Your task to perform on an android device: turn notification dots off Image 0: 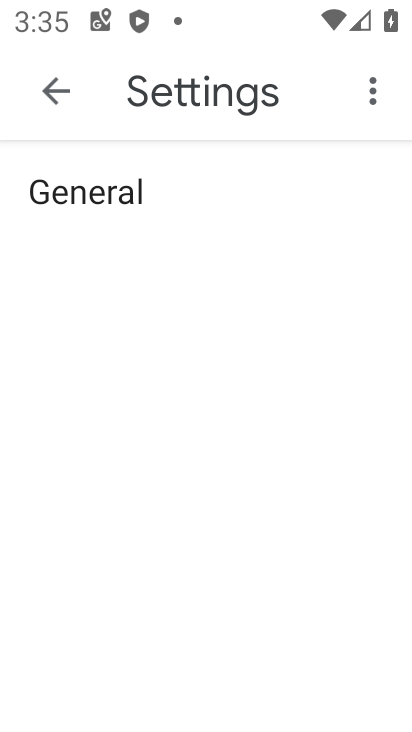
Step 0: press home button
Your task to perform on an android device: turn notification dots off Image 1: 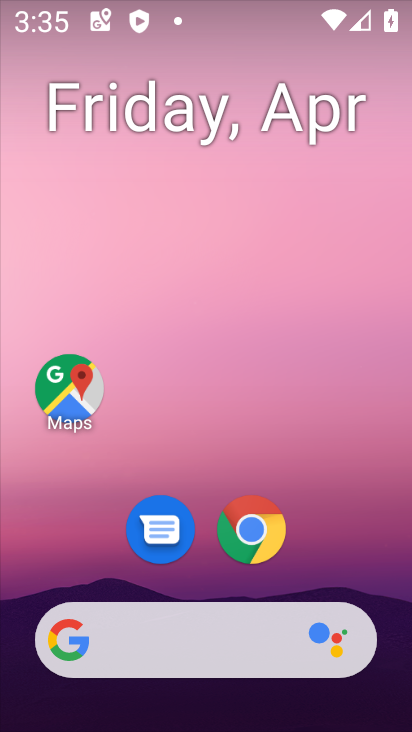
Step 1: drag from (328, 550) to (356, 106)
Your task to perform on an android device: turn notification dots off Image 2: 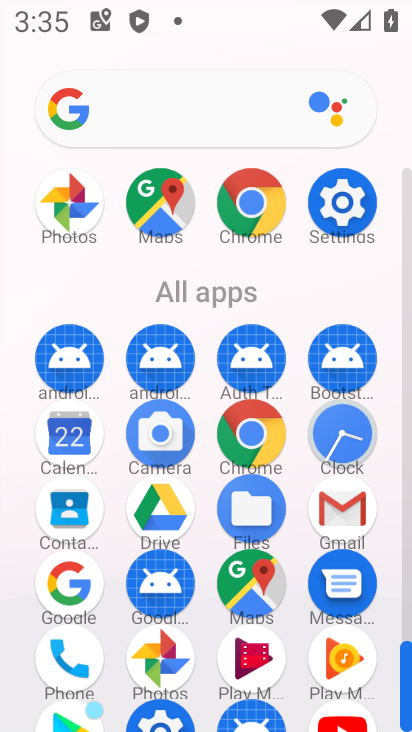
Step 2: click (338, 212)
Your task to perform on an android device: turn notification dots off Image 3: 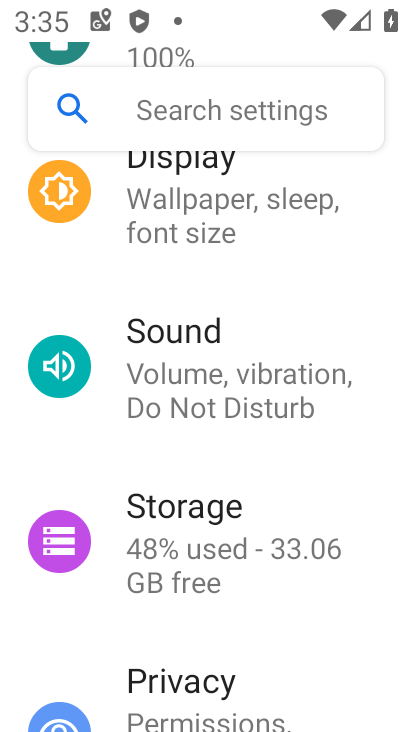
Step 3: drag from (220, 440) to (228, 509)
Your task to perform on an android device: turn notification dots off Image 4: 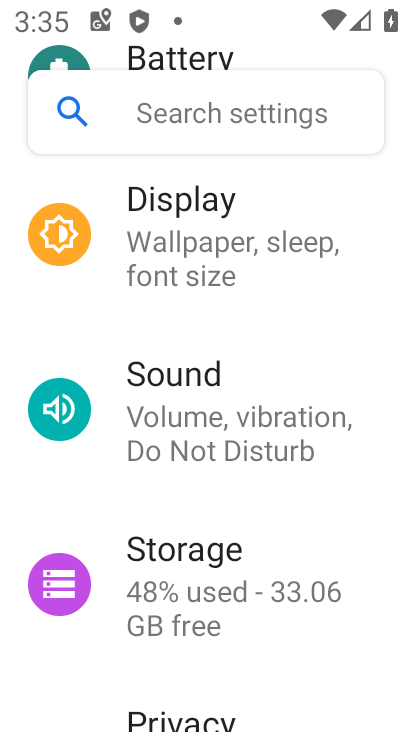
Step 4: drag from (255, 442) to (243, 507)
Your task to perform on an android device: turn notification dots off Image 5: 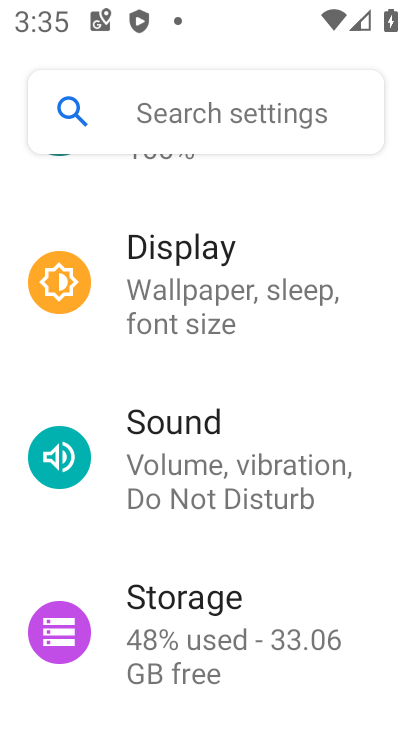
Step 5: drag from (281, 423) to (275, 499)
Your task to perform on an android device: turn notification dots off Image 6: 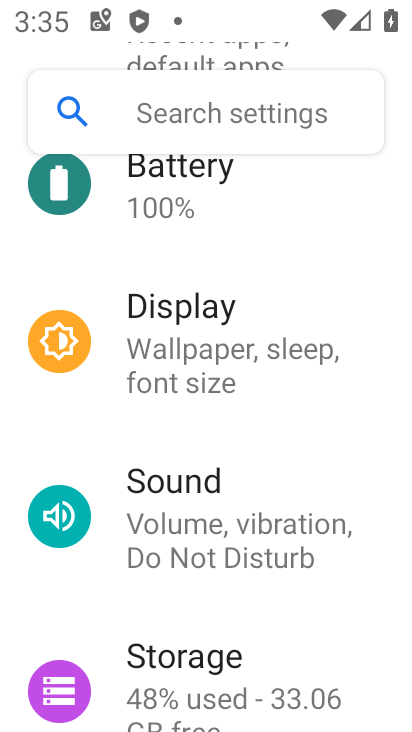
Step 6: drag from (272, 439) to (252, 517)
Your task to perform on an android device: turn notification dots off Image 7: 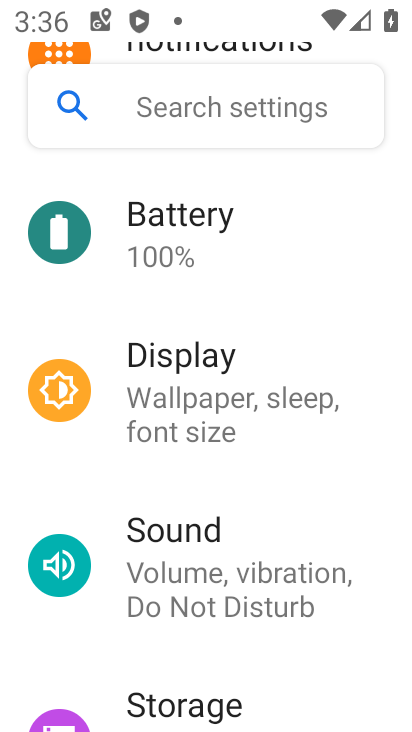
Step 7: drag from (230, 434) to (225, 505)
Your task to perform on an android device: turn notification dots off Image 8: 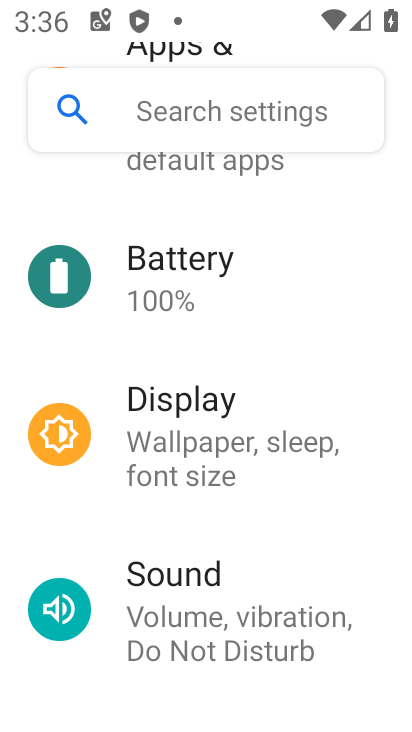
Step 8: drag from (248, 414) to (257, 474)
Your task to perform on an android device: turn notification dots off Image 9: 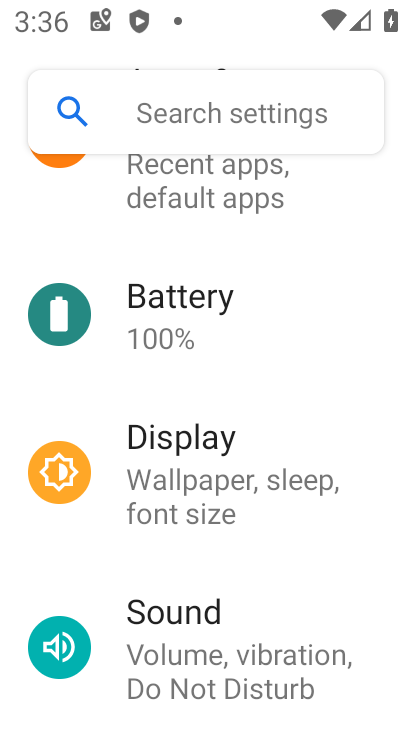
Step 9: drag from (246, 441) to (255, 501)
Your task to perform on an android device: turn notification dots off Image 10: 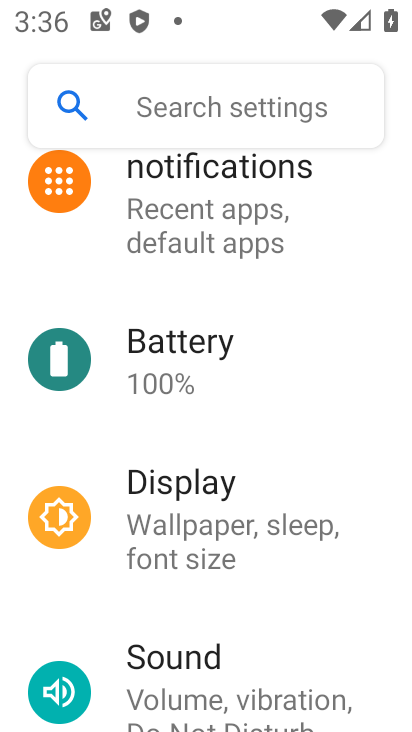
Step 10: drag from (241, 449) to (244, 540)
Your task to perform on an android device: turn notification dots off Image 11: 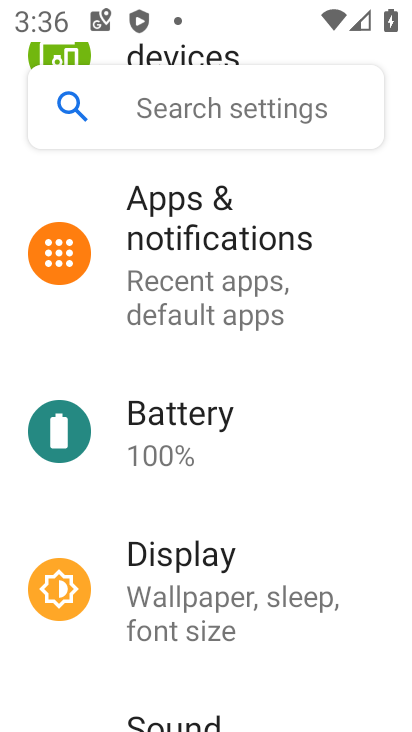
Step 11: click (251, 317)
Your task to perform on an android device: turn notification dots off Image 12: 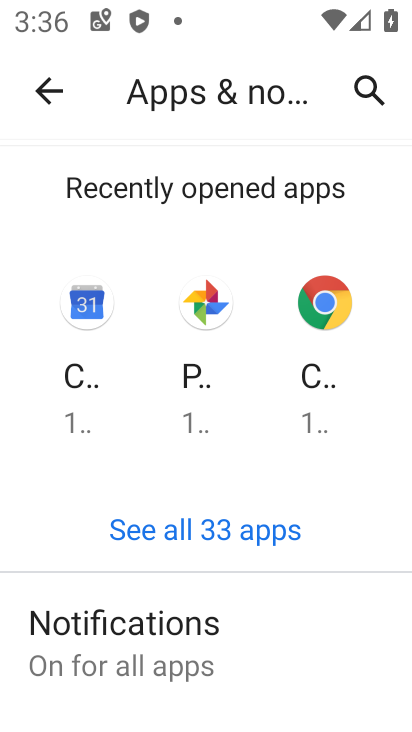
Step 12: click (242, 623)
Your task to perform on an android device: turn notification dots off Image 13: 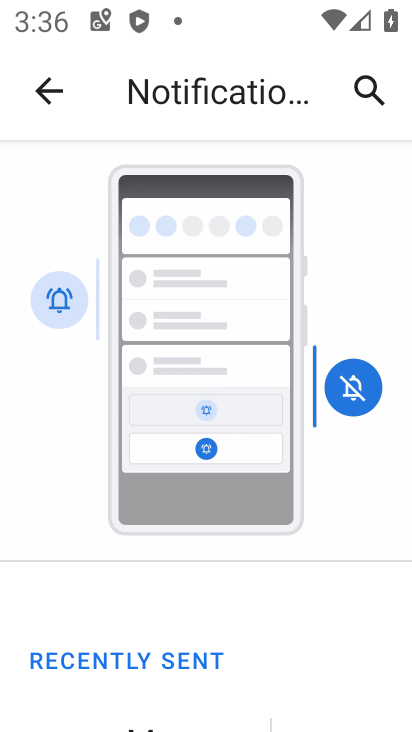
Step 13: drag from (236, 600) to (257, 441)
Your task to perform on an android device: turn notification dots off Image 14: 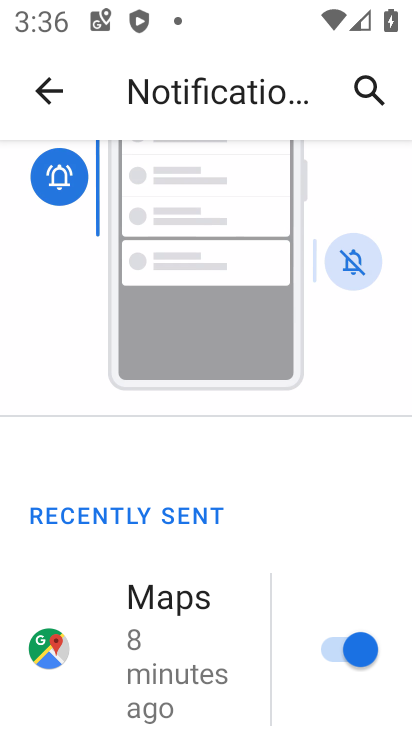
Step 14: drag from (227, 638) to (259, 454)
Your task to perform on an android device: turn notification dots off Image 15: 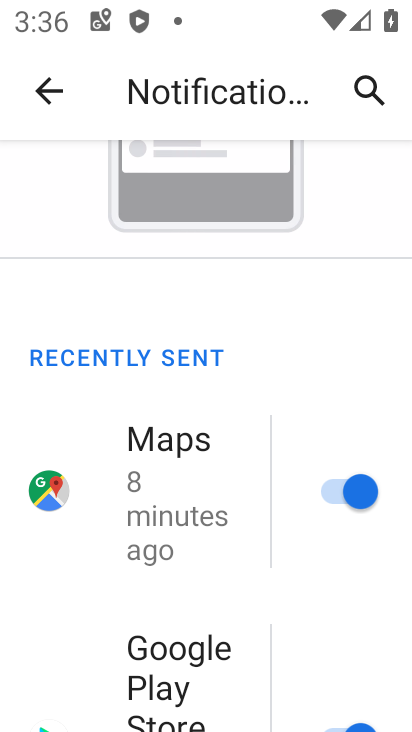
Step 15: drag from (225, 620) to (231, 495)
Your task to perform on an android device: turn notification dots off Image 16: 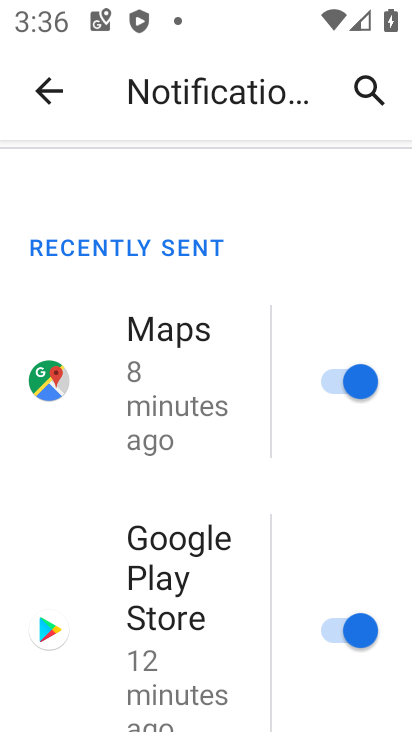
Step 16: drag from (225, 595) to (233, 484)
Your task to perform on an android device: turn notification dots off Image 17: 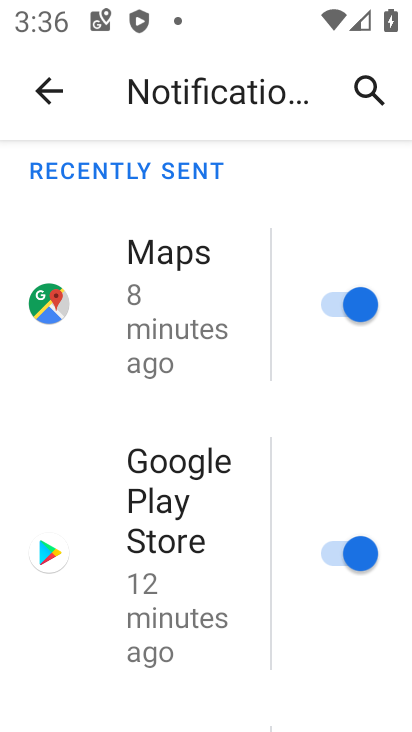
Step 17: drag from (223, 572) to (240, 457)
Your task to perform on an android device: turn notification dots off Image 18: 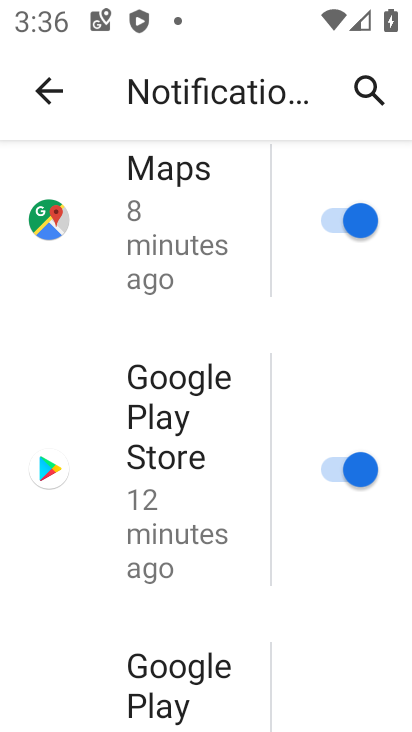
Step 18: drag from (206, 658) to (237, 420)
Your task to perform on an android device: turn notification dots off Image 19: 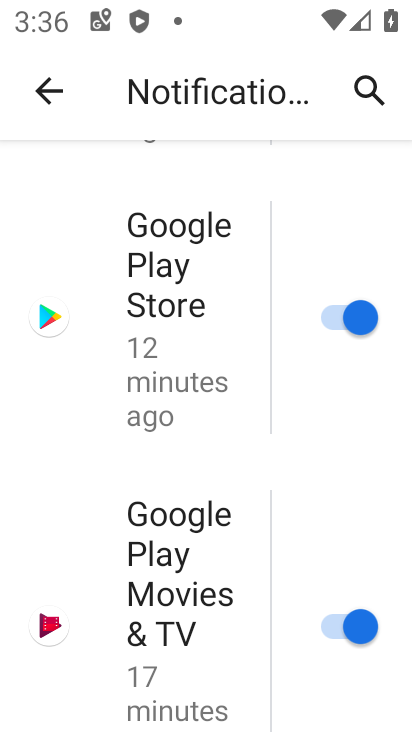
Step 19: drag from (239, 573) to (272, 430)
Your task to perform on an android device: turn notification dots off Image 20: 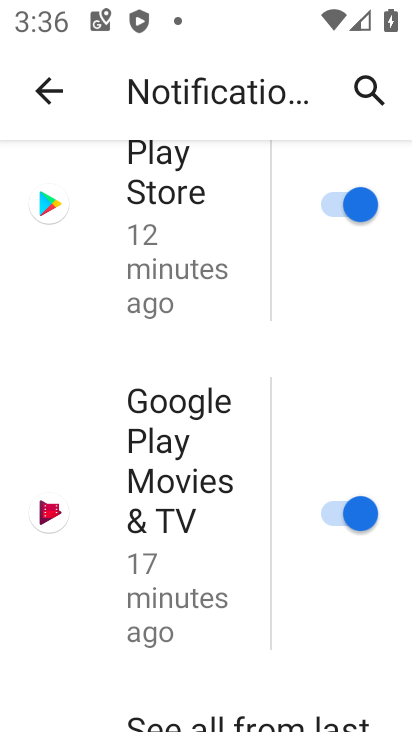
Step 20: drag from (173, 673) to (256, 450)
Your task to perform on an android device: turn notification dots off Image 21: 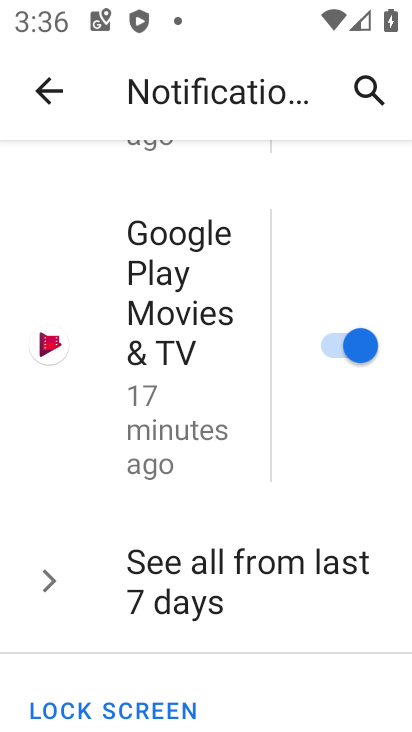
Step 21: drag from (217, 682) to (262, 477)
Your task to perform on an android device: turn notification dots off Image 22: 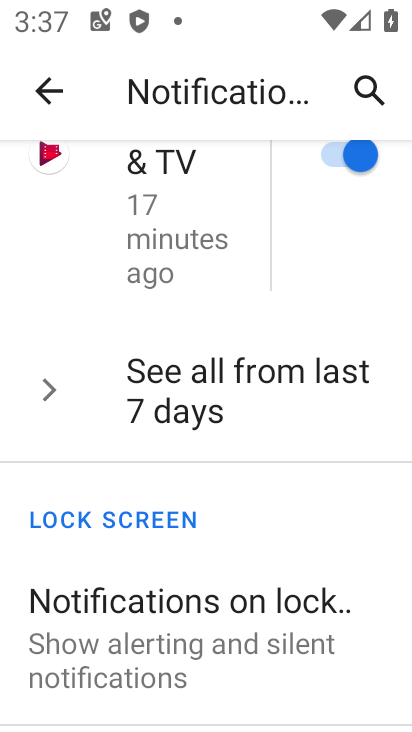
Step 22: drag from (253, 628) to (289, 458)
Your task to perform on an android device: turn notification dots off Image 23: 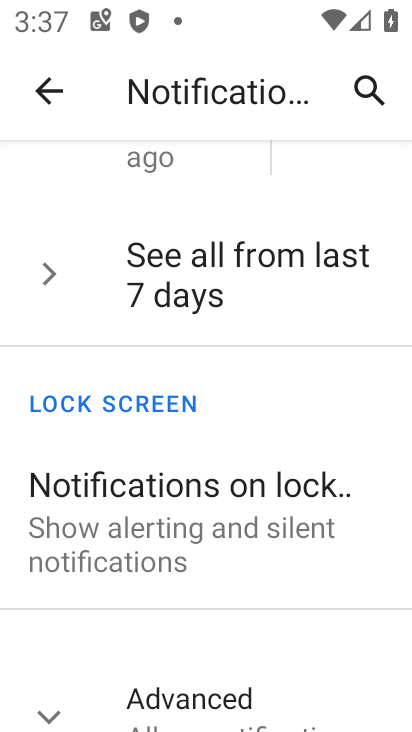
Step 23: click (228, 704)
Your task to perform on an android device: turn notification dots off Image 24: 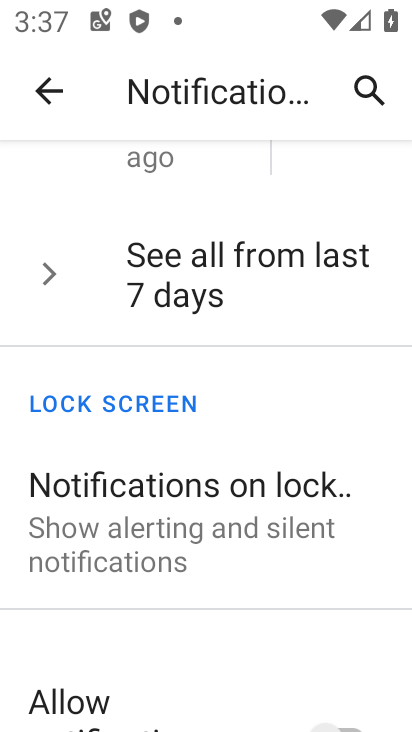
Step 24: drag from (228, 702) to (243, 438)
Your task to perform on an android device: turn notification dots off Image 25: 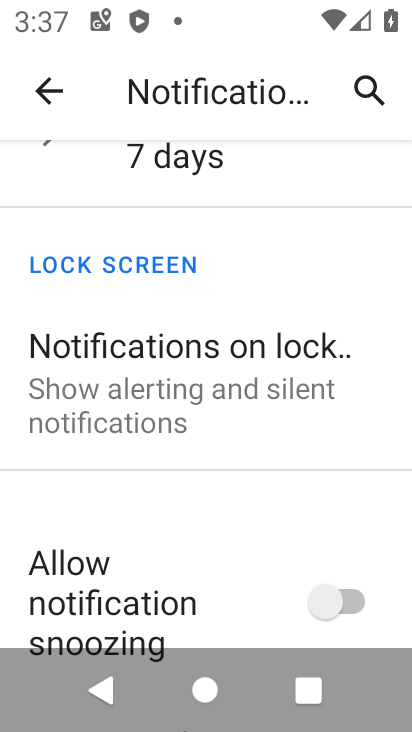
Step 25: drag from (214, 592) to (207, 370)
Your task to perform on an android device: turn notification dots off Image 26: 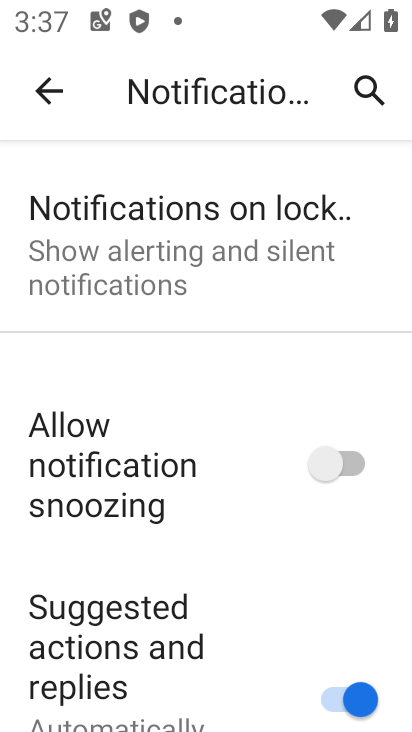
Step 26: drag from (201, 607) to (207, 387)
Your task to perform on an android device: turn notification dots off Image 27: 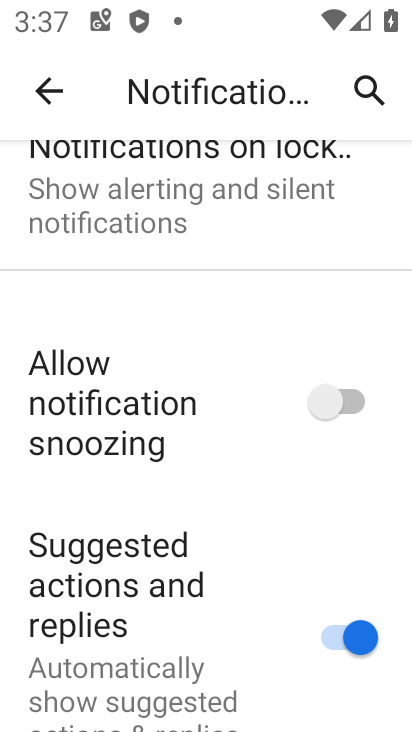
Step 27: drag from (205, 648) to (233, 362)
Your task to perform on an android device: turn notification dots off Image 28: 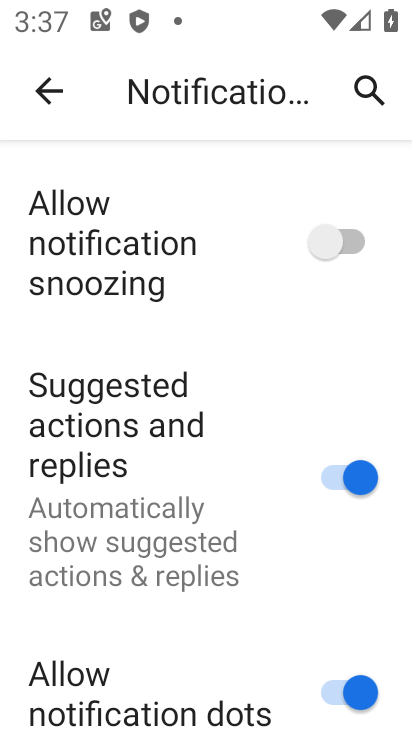
Step 28: click (366, 698)
Your task to perform on an android device: turn notification dots off Image 29: 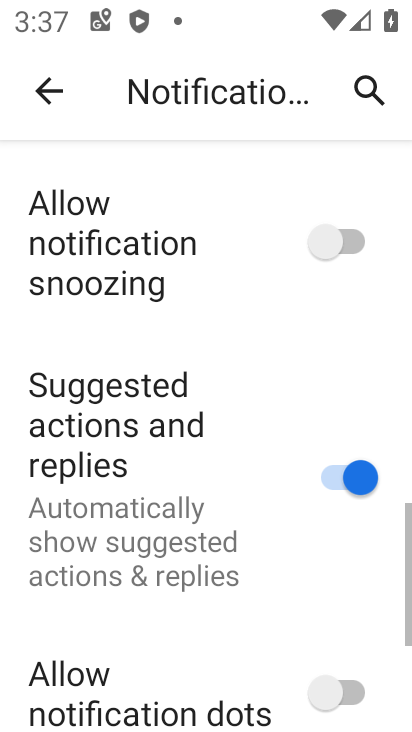
Step 29: task complete